Your task to perform on an android device: Search for Italian restaurants on Maps Image 0: 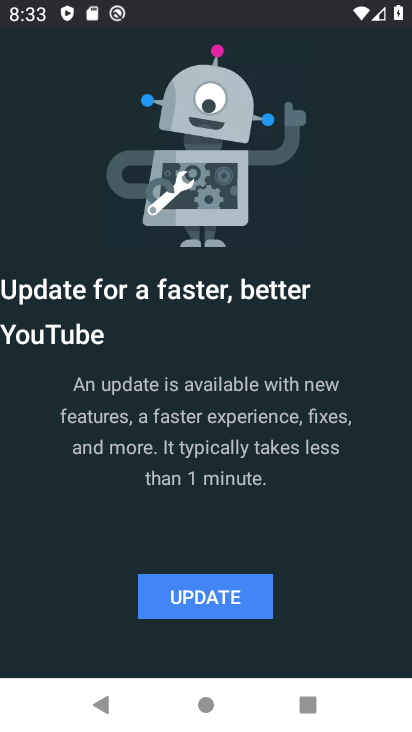
Step 0: press home button
Your task to perform on an android device: Search for Italian restaurants on Maps Image 1: 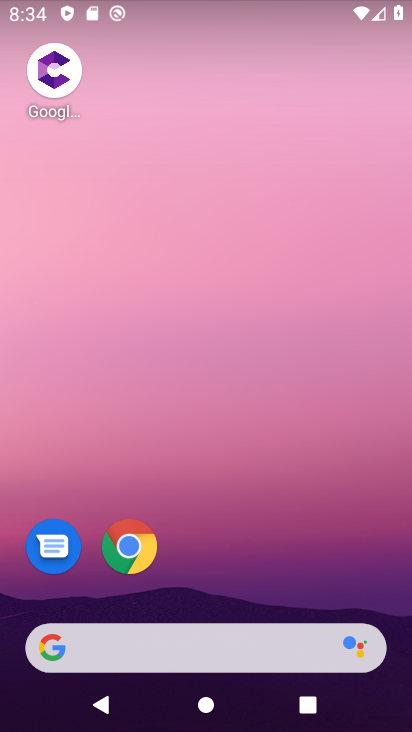
Step 1: drag from (182, 674) to (281, 122)
Your task to perform on an android device: Search for Italian restaurants on Maps Image 2: 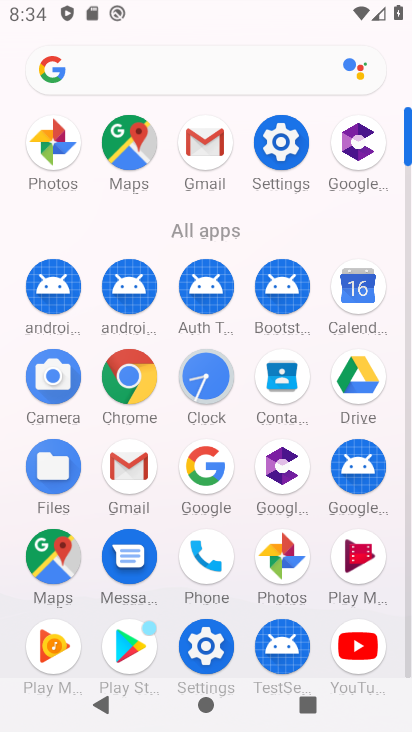
Step 2: click (60, 545)
Your task to perform on an android device: Search for Italian restaurants on Maps Image 3: 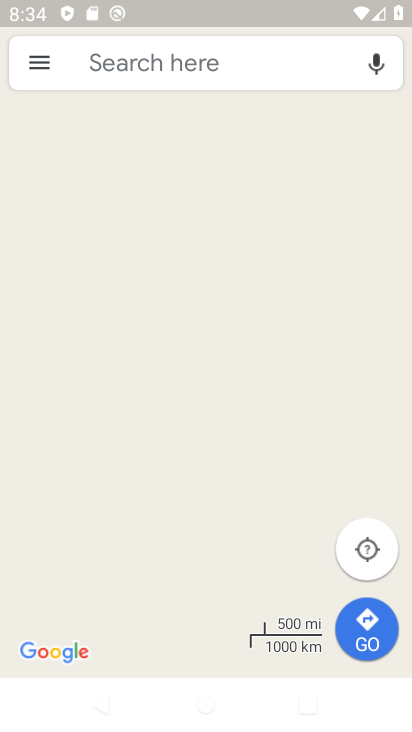
Step 3: click (145, 82)
Your task to perform on an android device: Search for Italian restaurants on Maps Image 4: 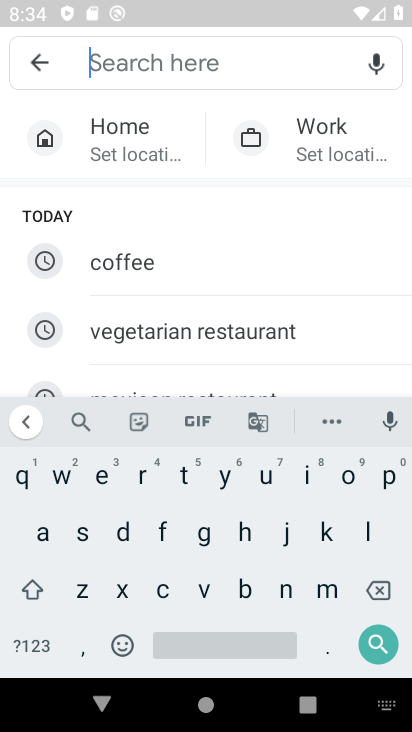
Step 4: click (301, 481)
Your task to perform on an android device: Search for Italian restaurants on Maps Image 5: 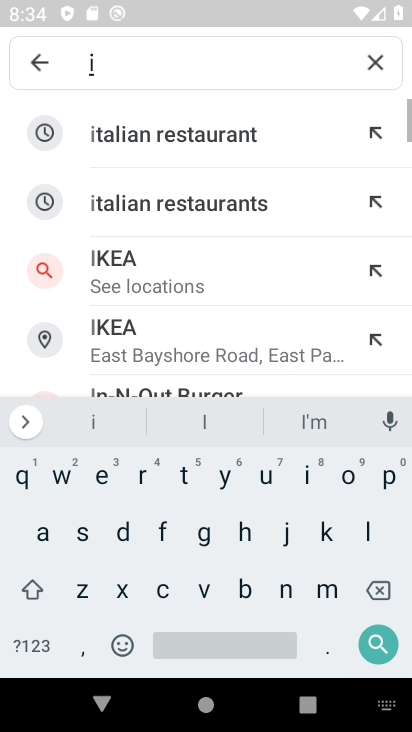
Step 5: click (181, 144)
Your task to perform on an android device: Search for Italian restaurants on Maps Image 6: 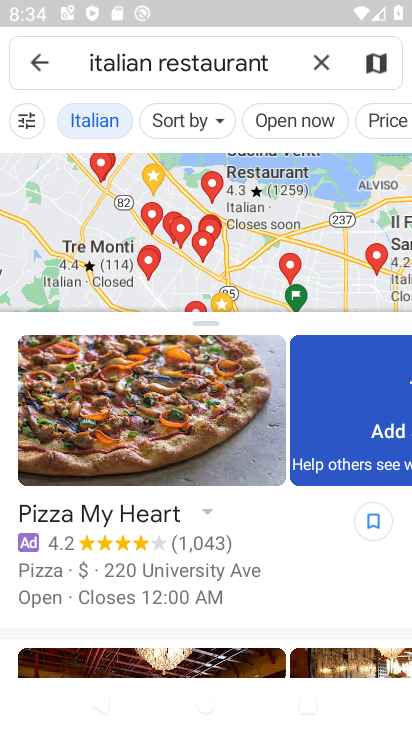
Step 6: task complete